Your task to perform on an android device: change the clock display to analog Image 0: 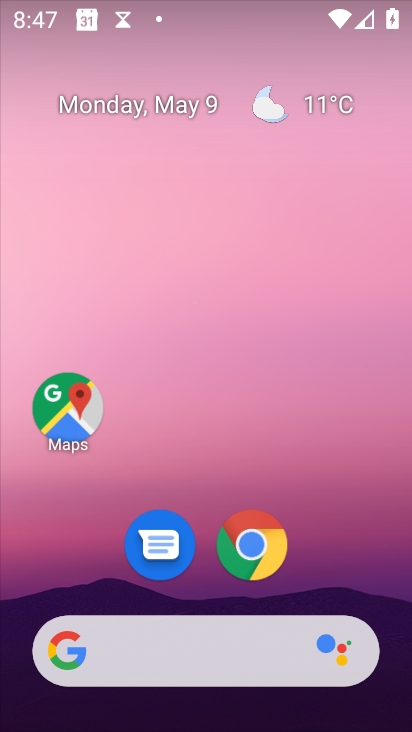
Step 0: drag from (202, 726) to (178, 205)
Your task to perform on an android device: change the clock display to analog Image 1: 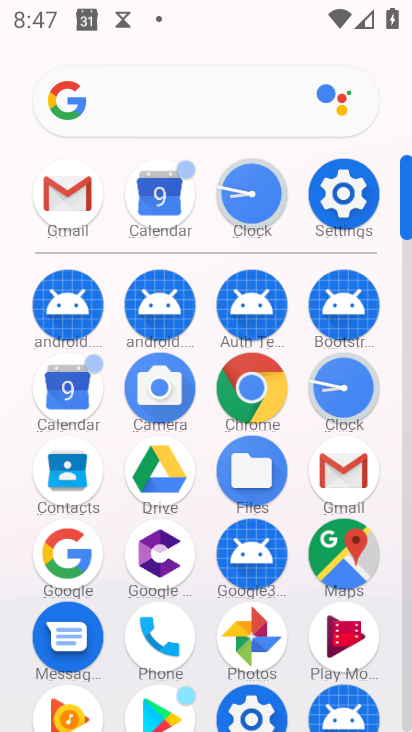
Step 1: click (334, 381)
Your task to perform on an android device: change the clock display to analog Image 2: 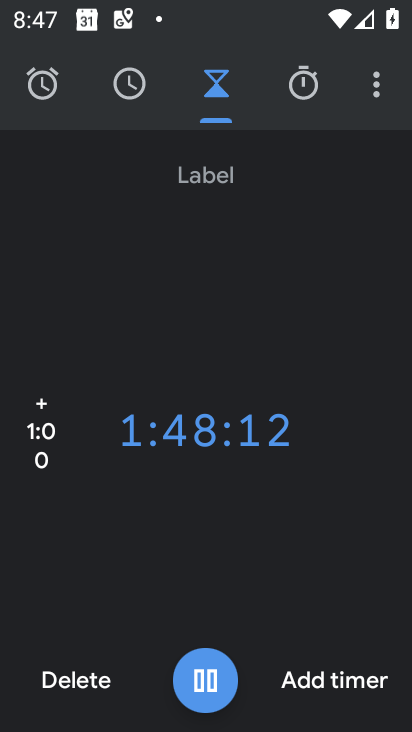
Step 2: click (377, 98)
Your task to perform on an android device: change the clock display to analog Image 3: 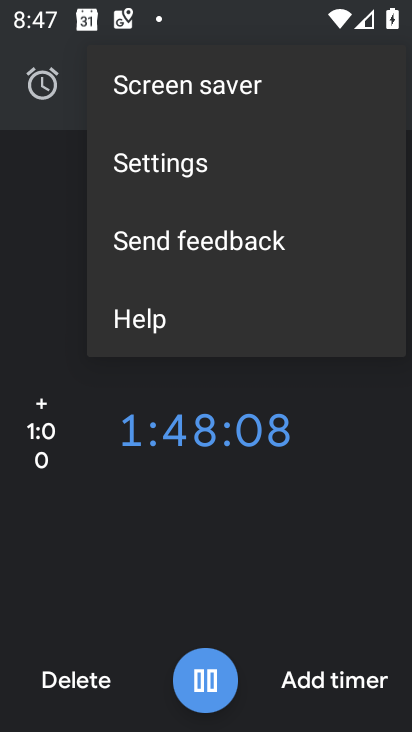
Step 3: click (180, 162)
Your task to perform on an android device: change the clock display to analog Image 4: 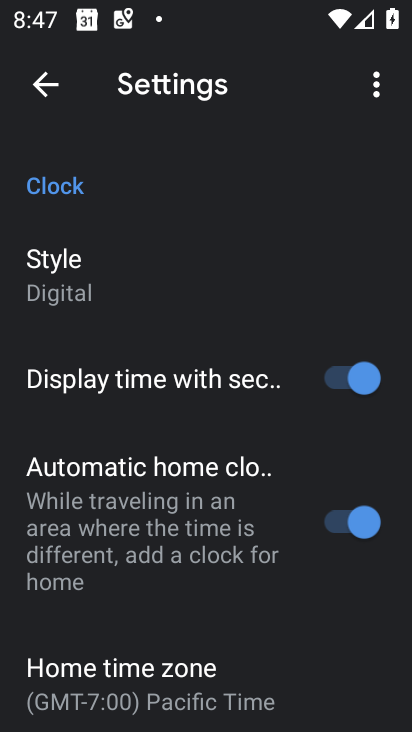
Step 4: click (68, 284)
Your task to perform on an android device: change the clock display to analog Image 5: 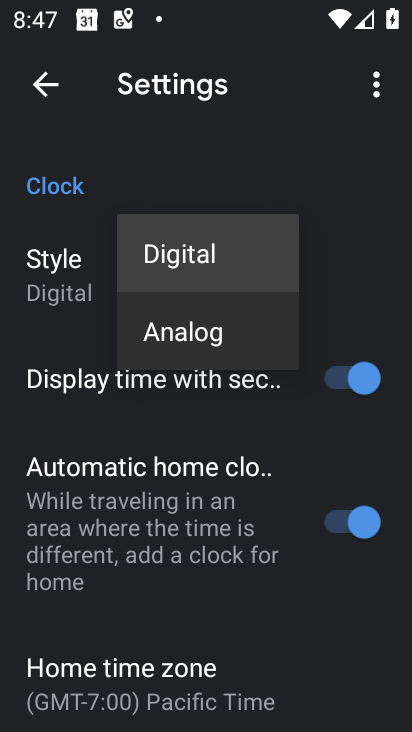
Step 5: click (165, 321)
Your task to perform on an android device: change the clock display to analog Image 6: 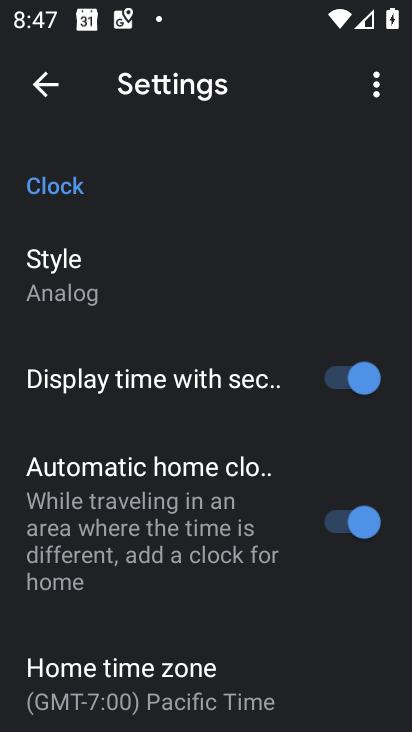
Step 6: task complete